Your task to perform on an android device: change notification settings in the gmail app Image 0: 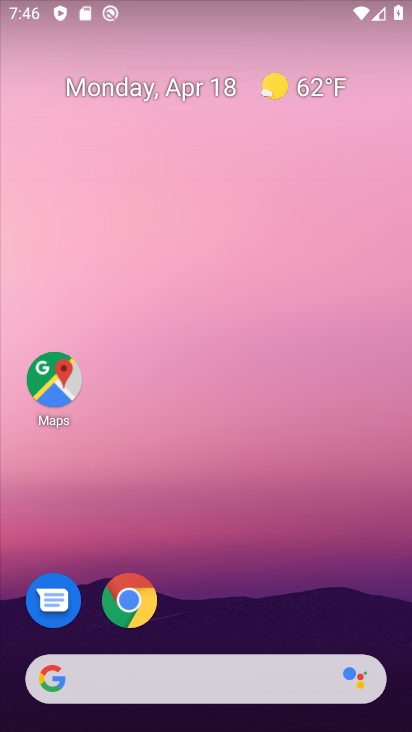
Step 0: drag from (206, 646) to (262, 2)
Your task to perform on an android device: change notification settings in the gmail app Image 1: 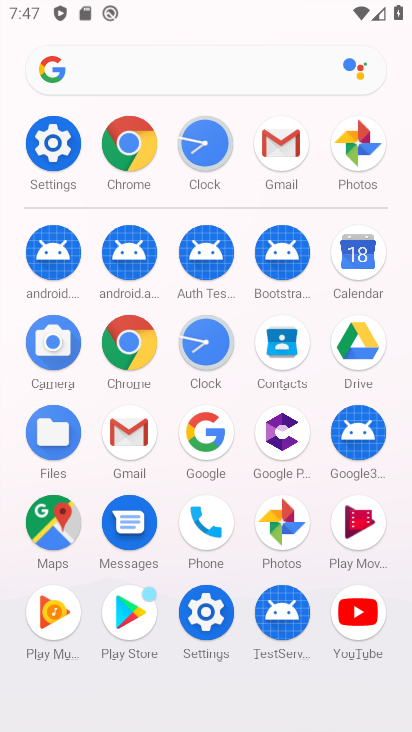
Step 1: click (277, 149)
Your task to perform on an android device: change notification settings in the gmail app Image 2: 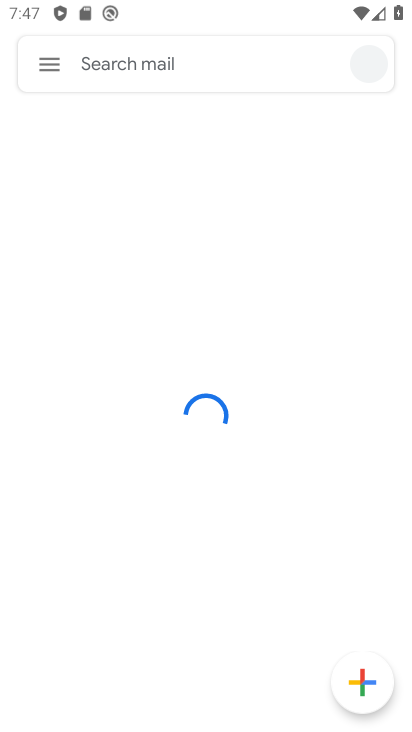
Step 2: click (51, 73)
Your task to perform on an android device: change notification settings in the gmail app Image 3: 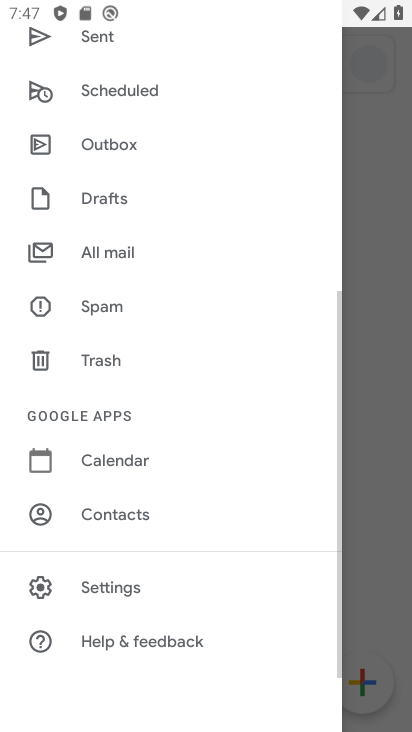
Step 3: click (131, 581)
Your task to perform on an android device: change notification settings in the gmail app Image 4: 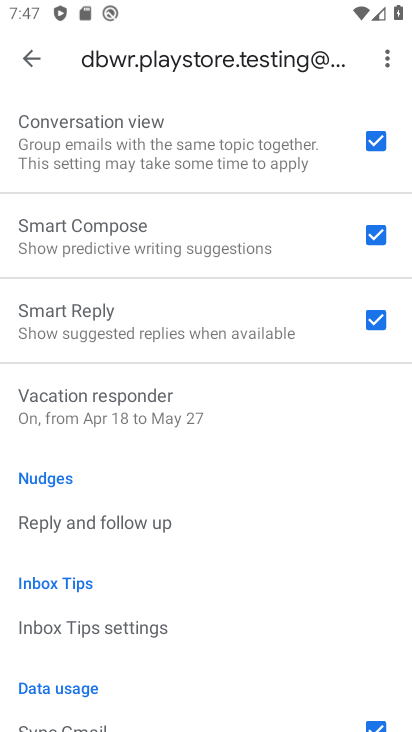
Step 4: click (32, 53)
Your task to perform on an android device: change notification settings in the gmail app Image 5: 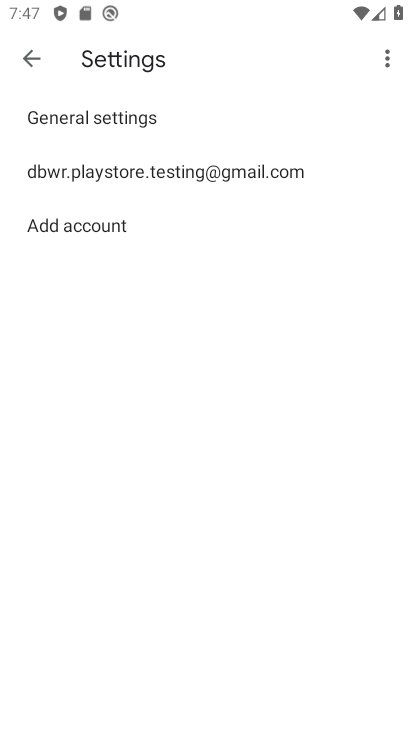
Step 5: click (77, 106)
Your task to perform on an android device: change notification settings in the gmail app Image 6: 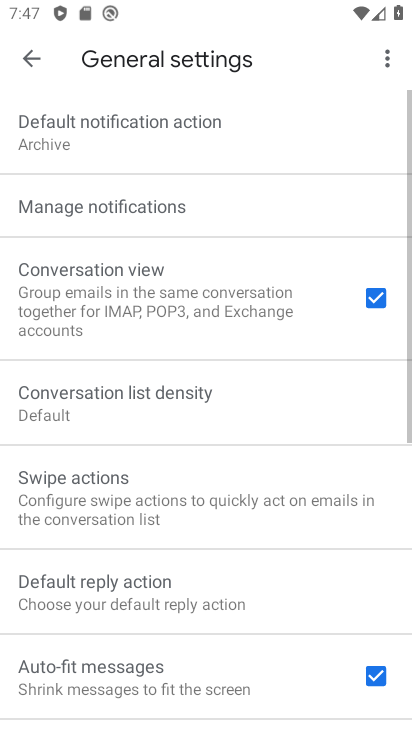
Step 6: click (130, 209)
Your task to perform on an android device: change notification settings in the gmail app Image 7: 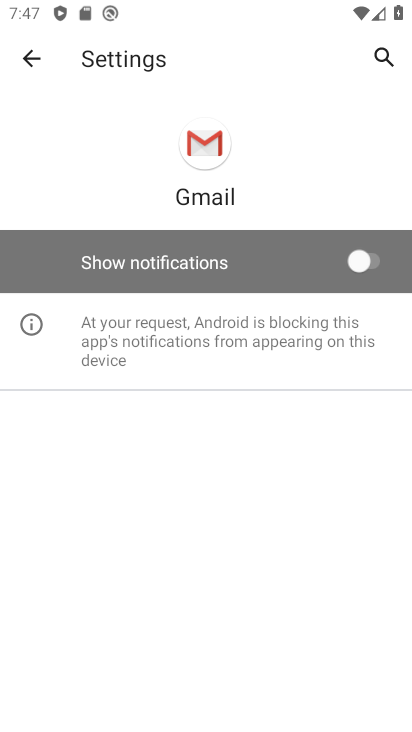
Step 7: click (378, 258)
Your task to perform on an android device: change notification settings in the gmail app Image 8: 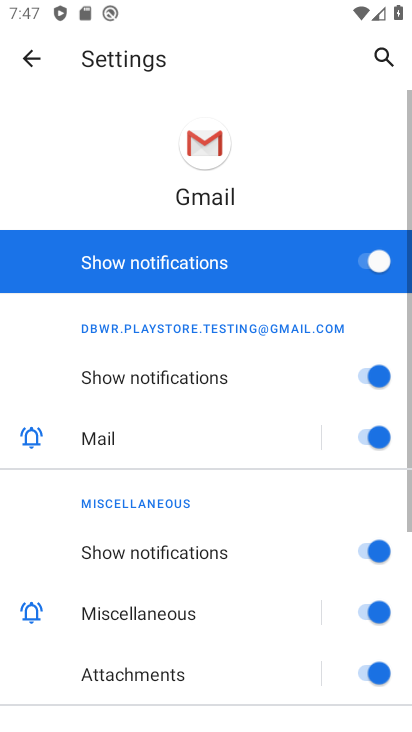
Step 8: task complete